Your task to perform on an android device: set the timer Image 0: 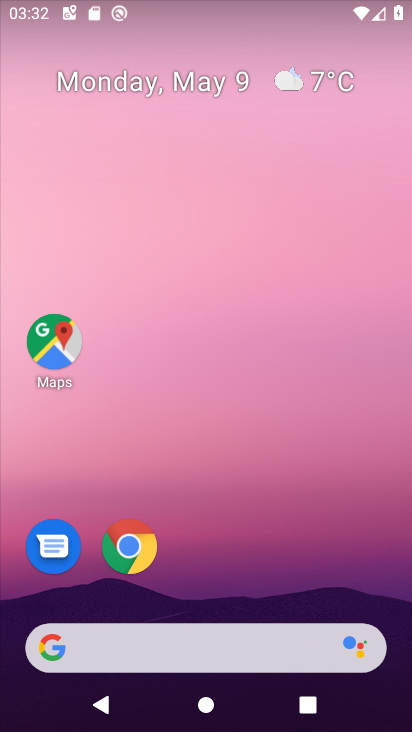
Step 0: task complete